Your task to perform on an android device: Open privacy settings Image 0: 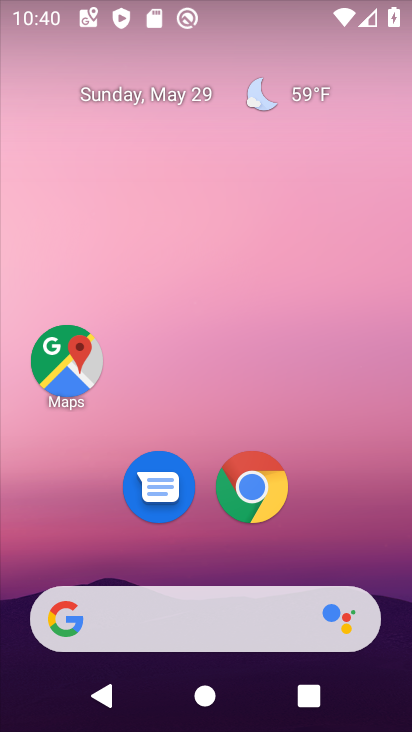
Step 0: click (256, 480)
Your task to perform on an android device: Open privacy settings Image 1: 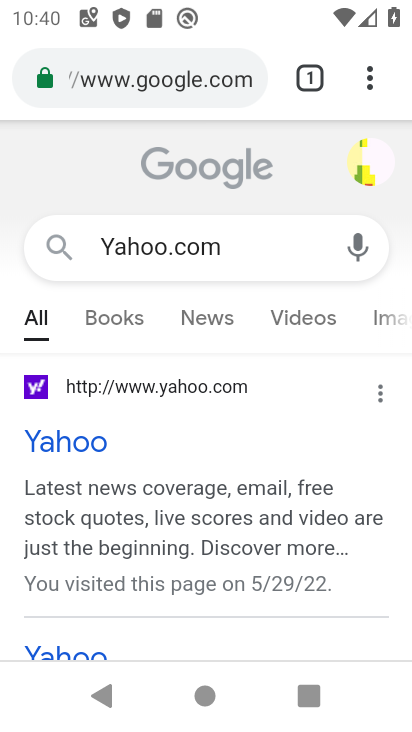
Step 1: click (365, 83)
Your task to perform on an android device: Open privacy settings Image 2: 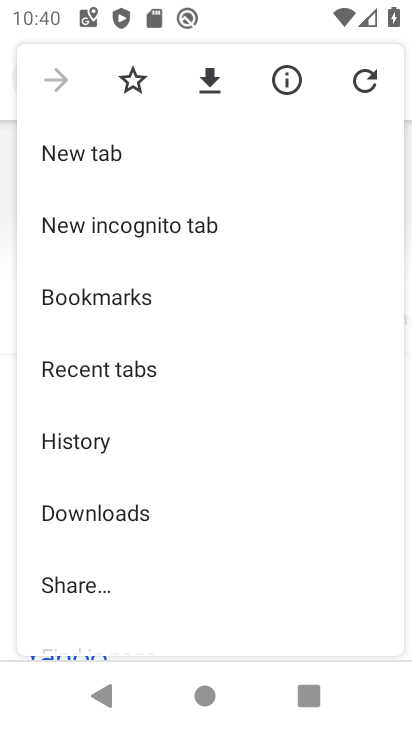
Step 2: drag from (226, 606) to (217, 267)
Your task to perform on an android device: Open privacy settings Image 3: 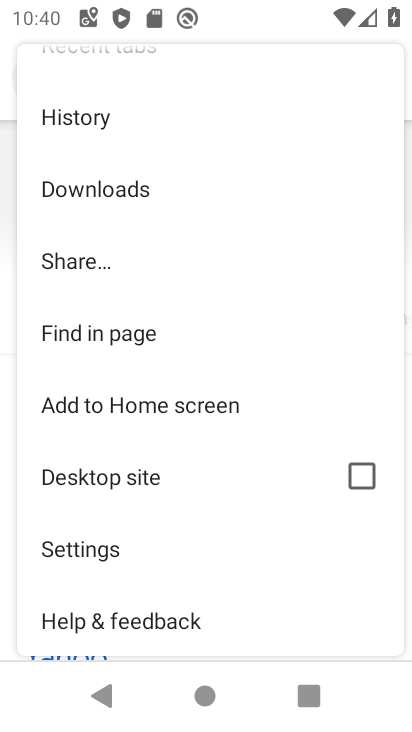
Step 3: drag from (260, 569) to (265, 282)
Your task to perform on an android device: Open privacy settings Image 4: 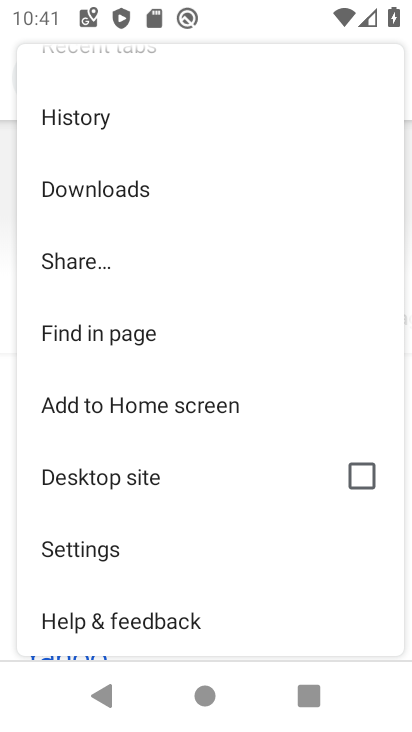
Step 4: drag from (261, 601) to (258, 303)
Your task to perform on an android device: Open privacy settings Image 5: 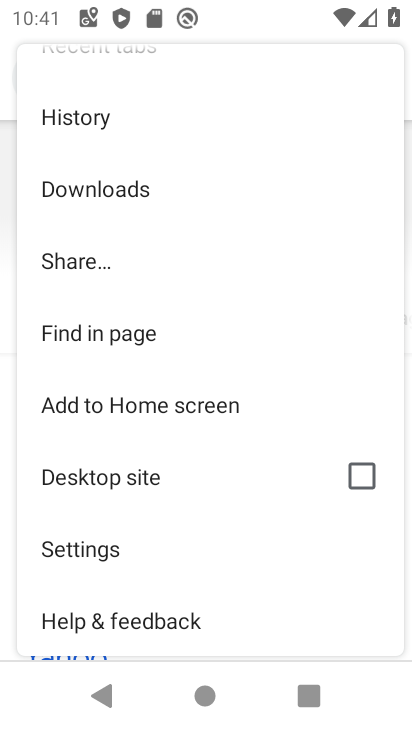
Step 5: click (62, 548)
Your task to perform on an android device: Open privacy settings Image 6: 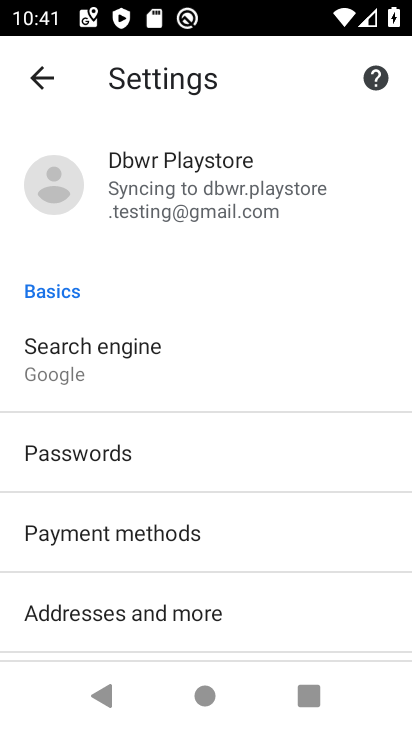
Step 6: drag from (282, 618) to (272, 258)
Your task to perform on an android device: Open privacy settings Image 7: 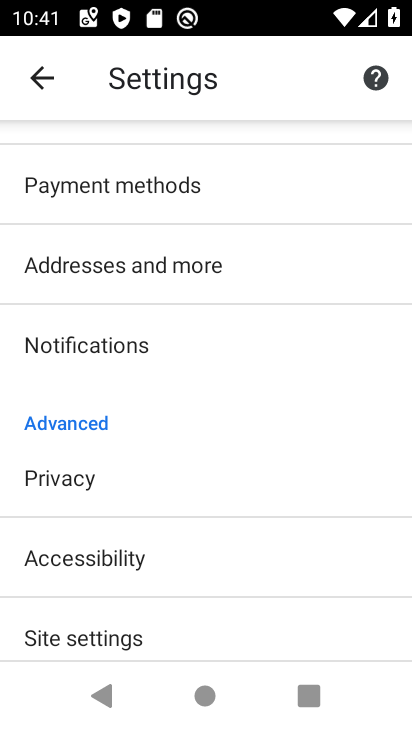
Step 7: click (44, 472)
Your task to perform on an android device: Open privacy settings Image 8: 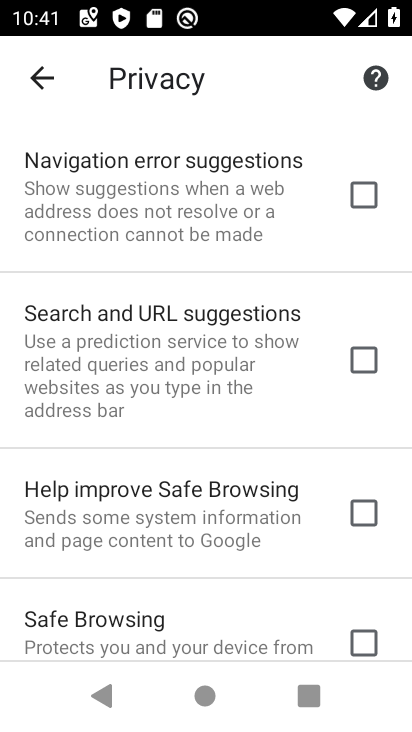
Step 8: task complete